Your task to perform on an android device: When is my next meeting? Image 0: 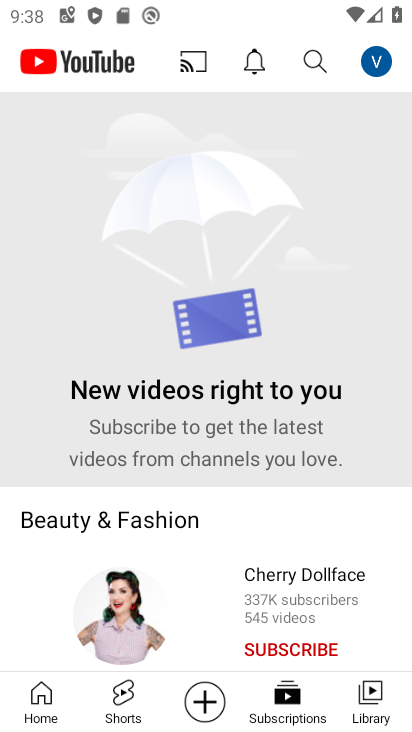
Step 0: press home button
Your task to perform on an android device: When is my next meeting? Image 1: 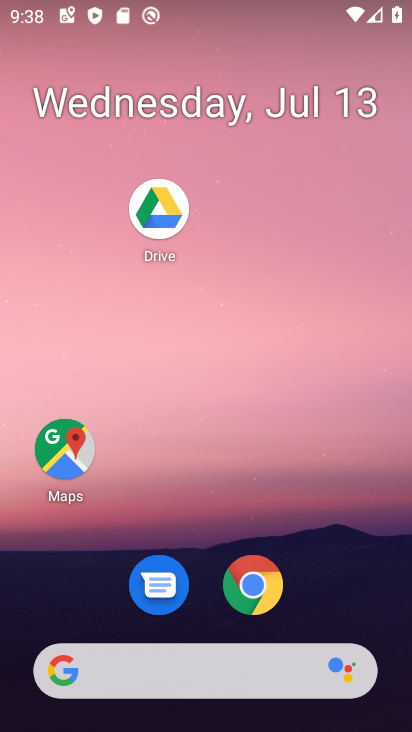
Step 1: drag from (179, 671) to (327, 55)
Your task to perform on an android device: When is my next meeting? Image 2: 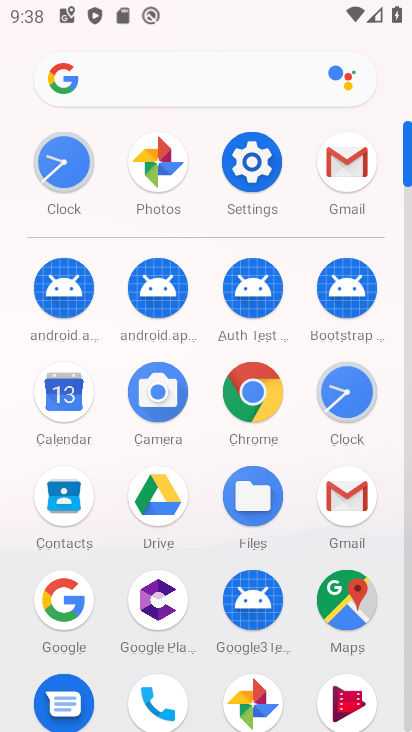
Step 2: click (65, 397)
Your task to perform on an android device: When is my next meeting? Image 3: 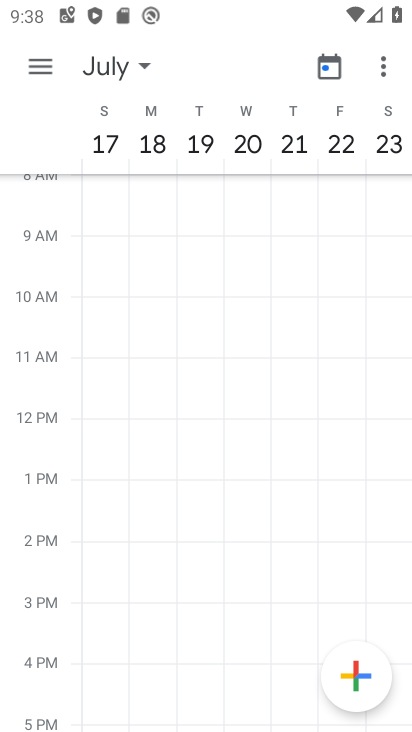
Step 3: click (120, 64)
Your task to perform on an android device: When is my next meeting? Image 4: 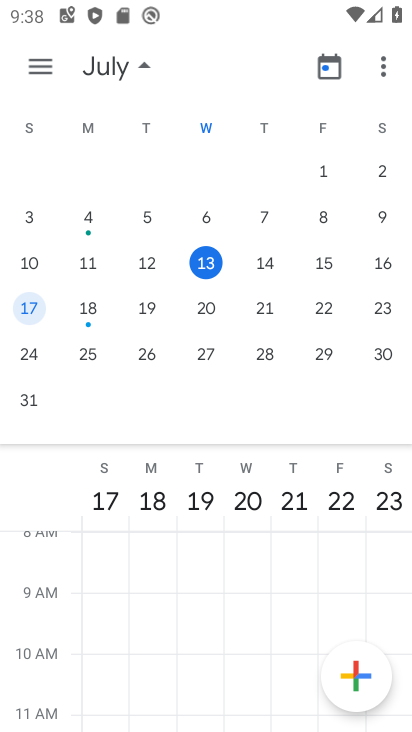
Step 4: click (30, 63)
Your task to perform on an android device: When is my next meeting? Image 5: 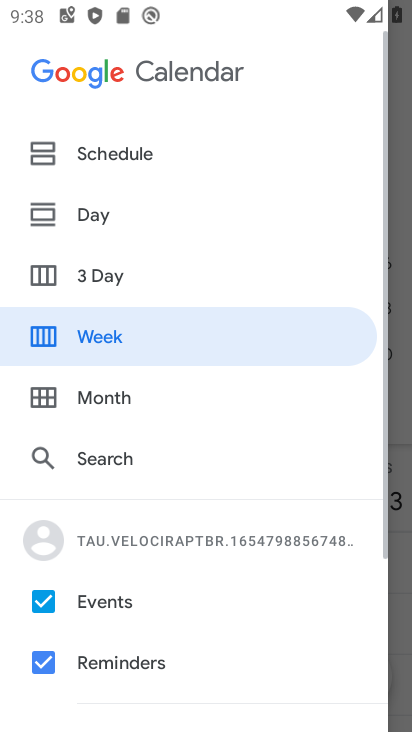
Step 5: click (115, 153)
Your task to perform on an android device: When is my next meeting? Image 6: 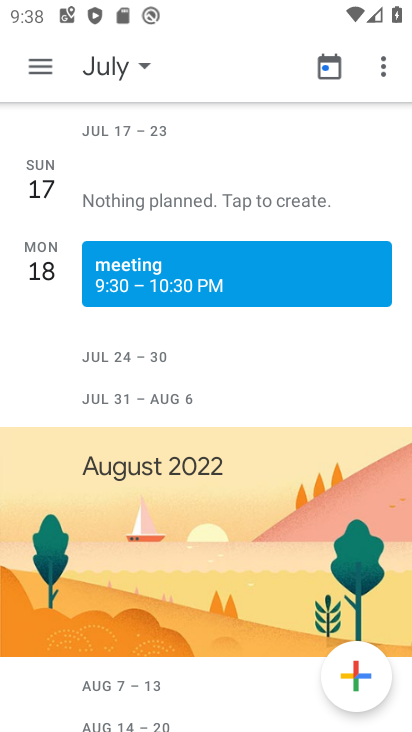
Step 6: task complete